Your task to perform on an android device: check data usage Image 0: 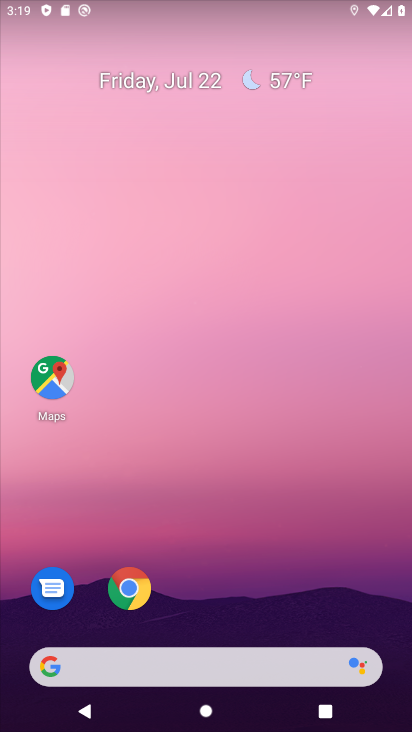
Step 0: drag from (190, 636) to (120, 67)
Your task to perform on an android device: check data usage Image 1: 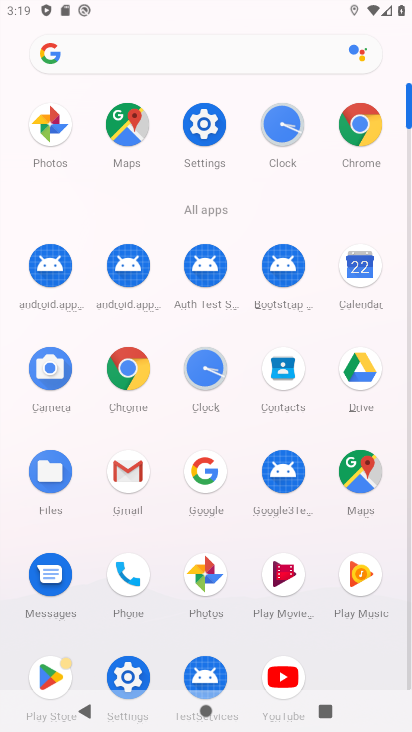
Step 1: click (201, 129)
Your task to perform on an android device: check data usage Image 2: 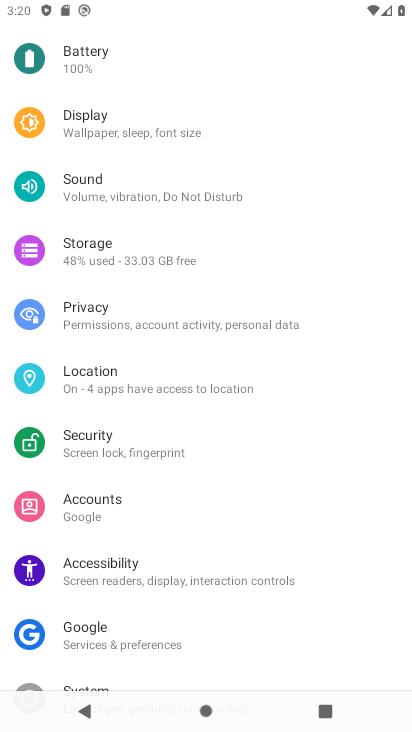
Step 2: drag from (147, 85) to (116, 568)
Your task to perform on an android device: check data usage Image 3: 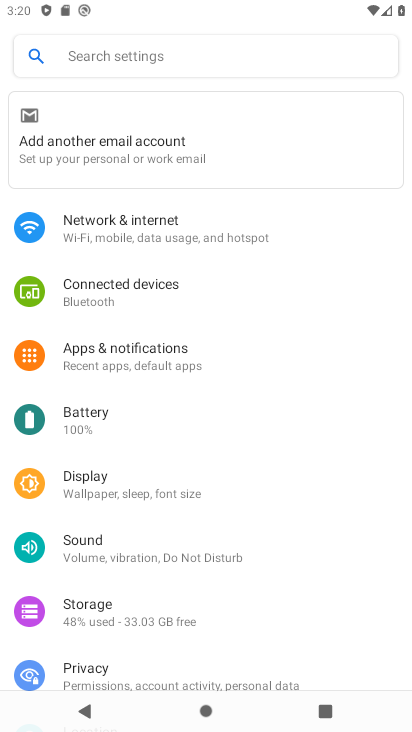
Step 3: click (127, 234)
Your task to perform on an android device: check data usage Image 4: 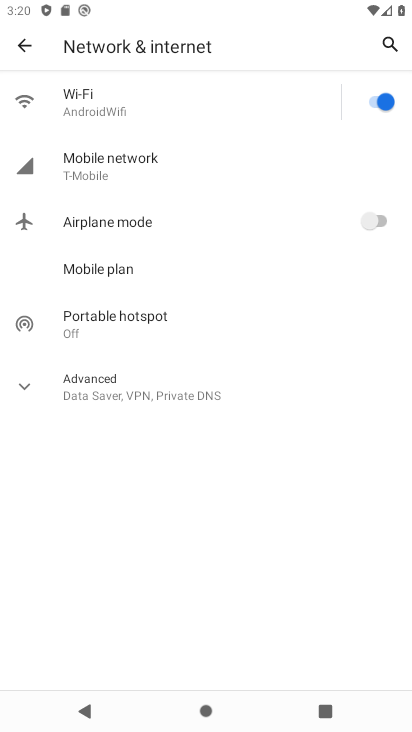
Step 4: click (106, 159)
Your task to perform on an android device: check data usage Image 5: 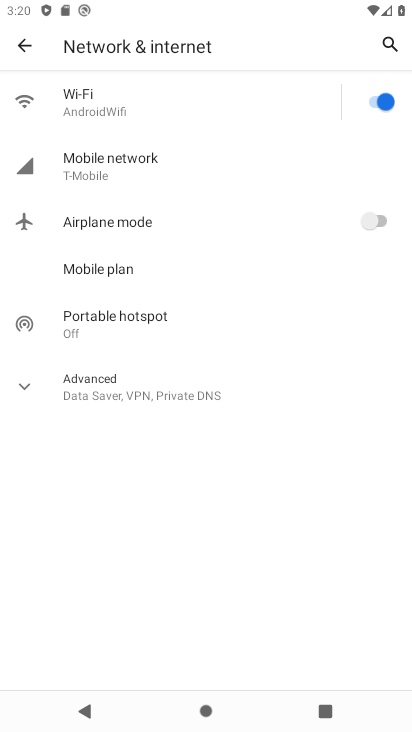
Step 5: task complete